Your task to perform on an android device: turn on airplane mode Image 0: 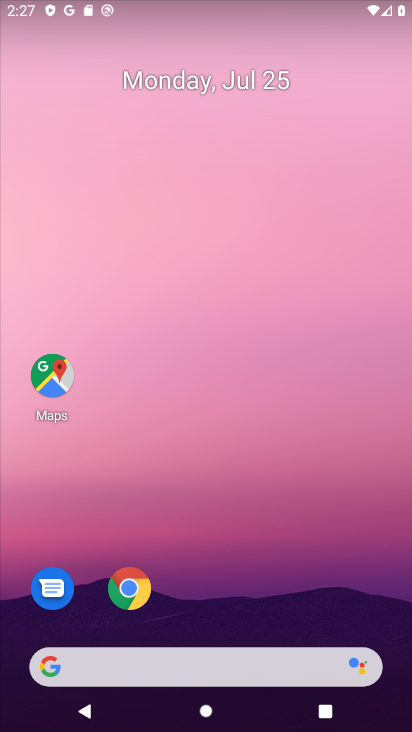
Step 0: press home button
Your task to perform on an android device: turn on airplane mode Image 1: 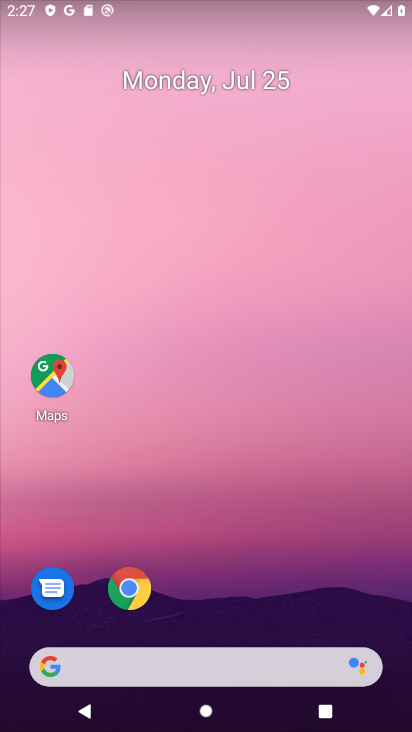
Step 1: drag from (210, 7) to (256, 536)
Your task to perform on an android device: turn on airplane mode Image 2: 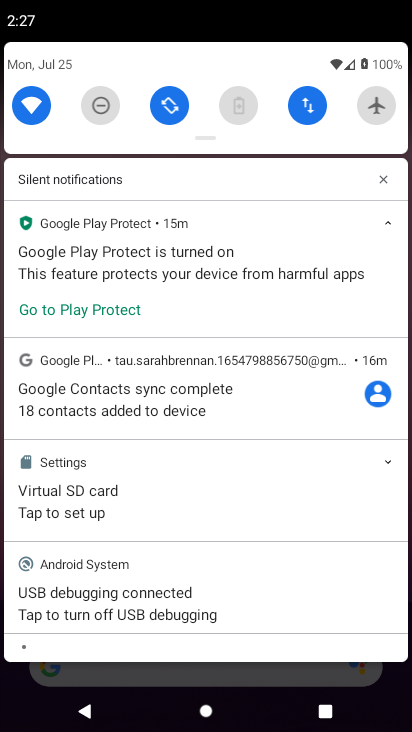
Step 2: click (380, 100)
Your task to perform on an android device: turn on airplane mode Image 3: 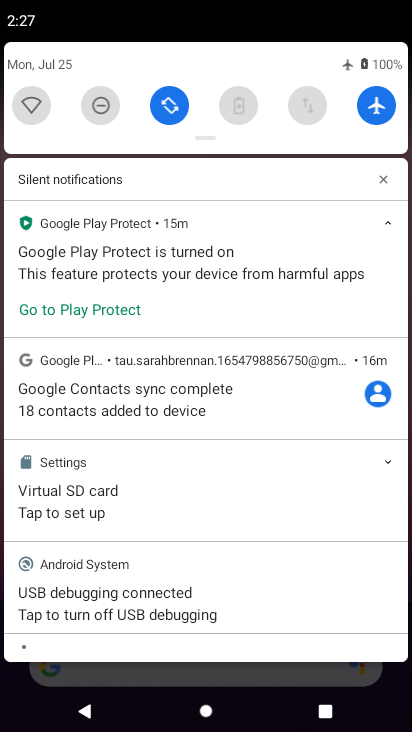
Step 3: task complete